Your task to perform on an android device: Open Youtube and go to "Your channel" Image 0: 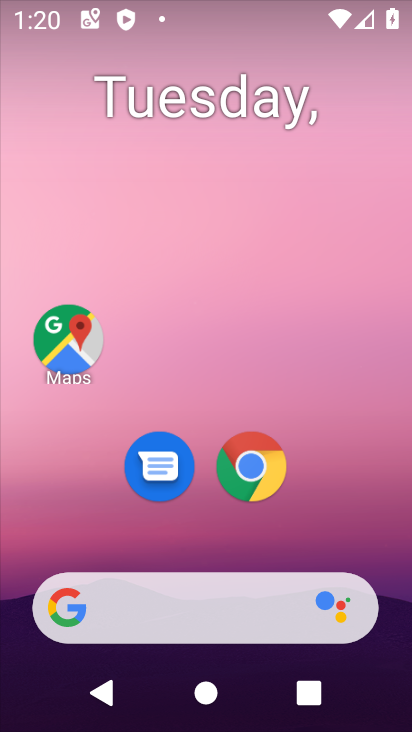
Step 0: drag from (411, 575) to (274, 0)
Your task to perform on an android device: Open Youtube and go to "Your channel" Image 1: 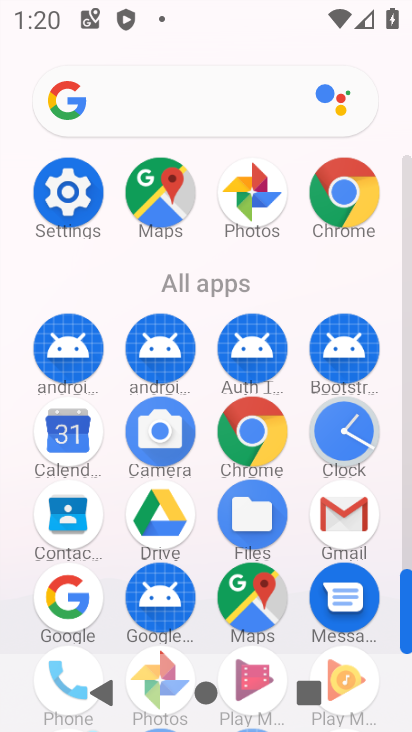
Step 1: drag from (410, 600) to (337, 135)
Your task to perform on an android device: Open Youtube and go to "Your channel" Image 2: 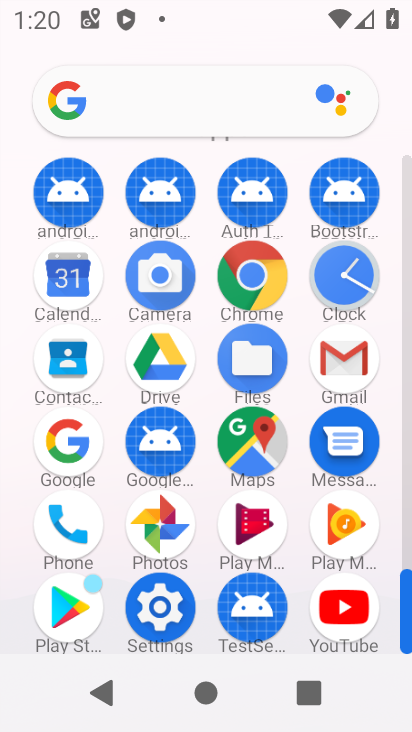
Step 2: click (363, 626)
Your task to perform on an android device: Open Youtube and go to "Your channel" Image 3: 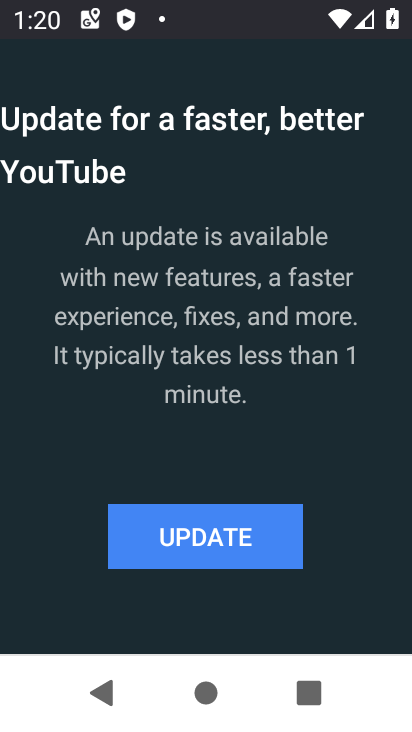
Step 3: click (236, 528)
Your task to perform on an android device: Open Youtube and go to "Your channel" Image 4: 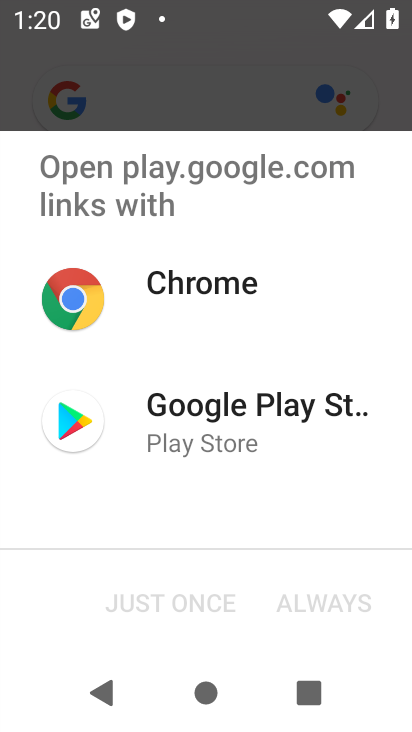
Step 4: click (200, 435)
Your task to perform on an android device: Open Youtube and go to "Your channel" Image 5: 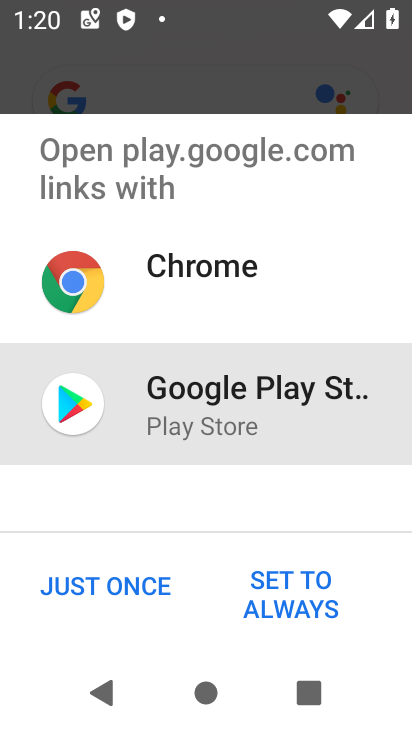
Step 5: click (27, 610)
Your task to perform on an android device: Open Youtube and go to "Your channel" Image 6: 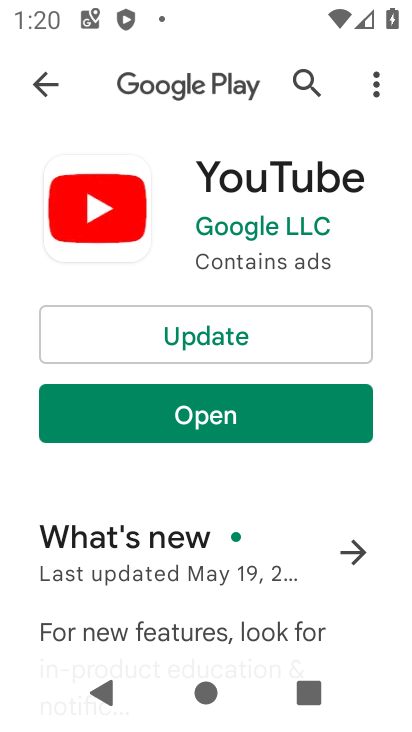
Step 6: click (142, 322)
Your task to perform on an android device: Open Youtube and go to "Your channel" Image 7: 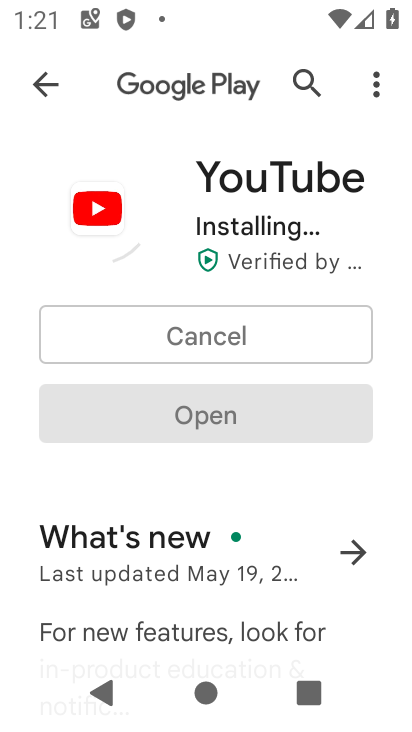
Step 7: click (248, 453)
Your task to perform on an android device: Open Youtube and go to "Your channel" Image 8: 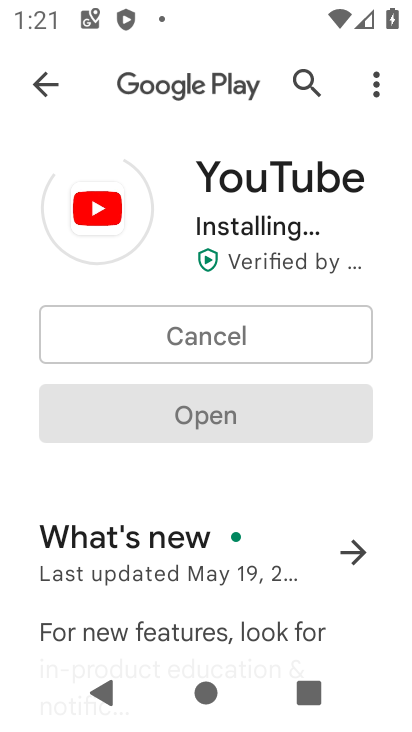
Step 8: click (250, 425)
Your task to perform on an android device: Open Youtube and go to "Your channel" Image 9: 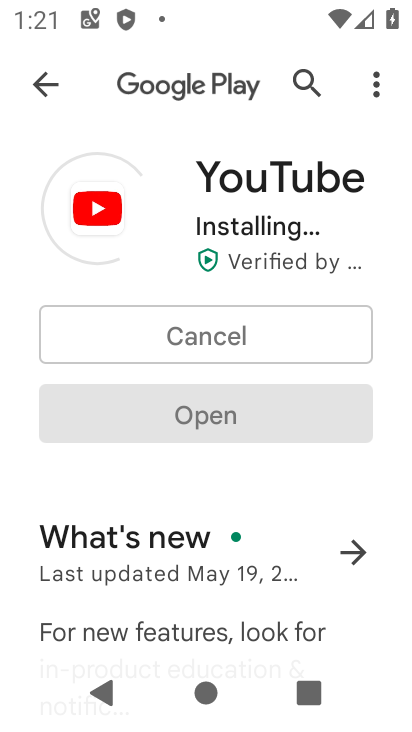
Step 9: click (250, 425)
Your task to perform on an android device: Open Youtube and go to "Your channel" Image 10: 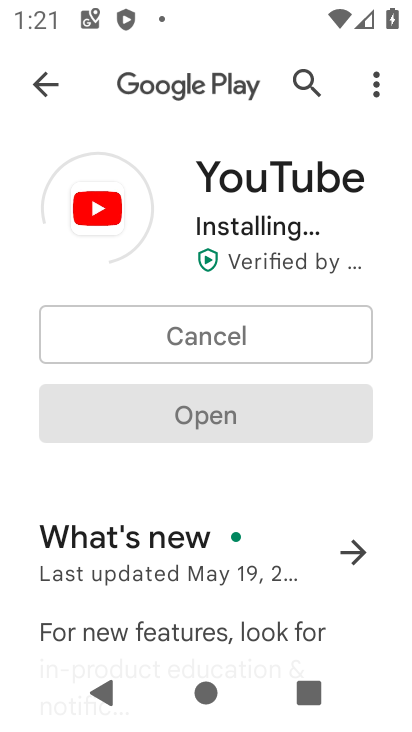
Step 10: click (250, 425)
Your task to perform on an android device: Open Youtube and go to "Your channel" Image 11: 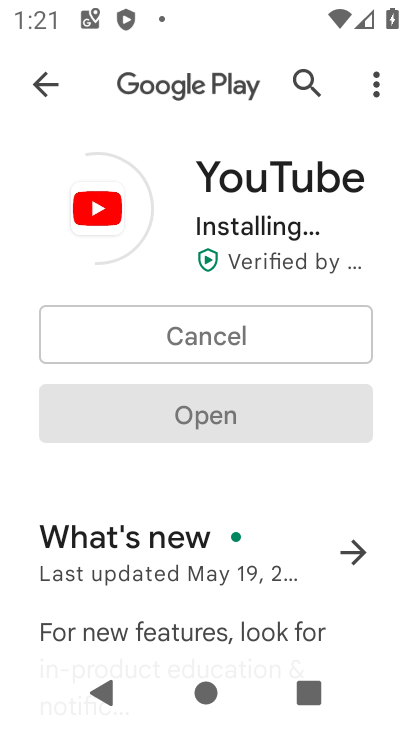
Step 11: click (250, 425)
Your task to perform on an android device: Open Youtube and go to "Your channel" Image 12: 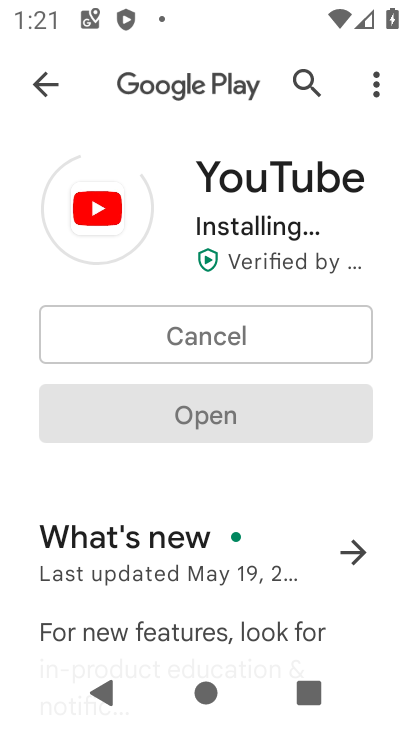
Step 12: click (250, 425)
Your task to perform on an android device: Open Youtube and go to "Your channel" Image 13: 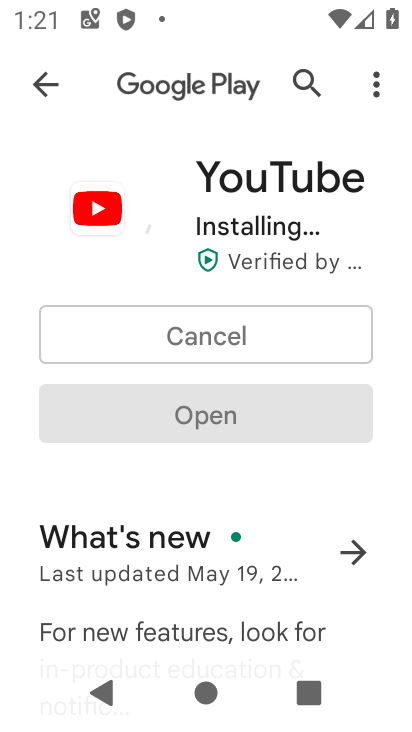
Step 13: click (250, 425)
Your task to perform on an android device: Open Youtube and go to "Your channel" Image 14: 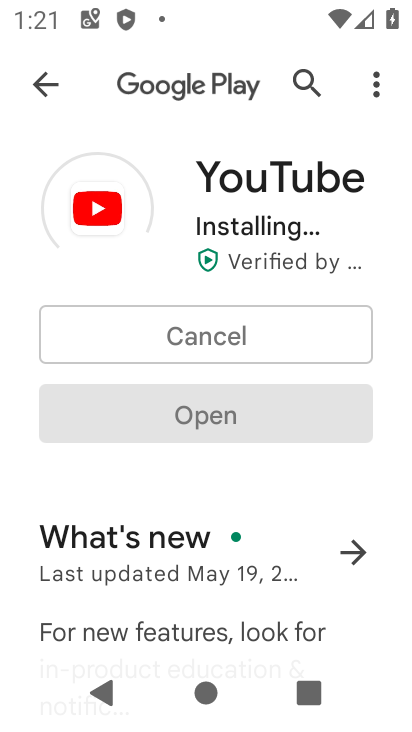
Step 14: click (250, 425)
Your task to perform on an android device: Open Youtube and go to "Your channel" Image 15: 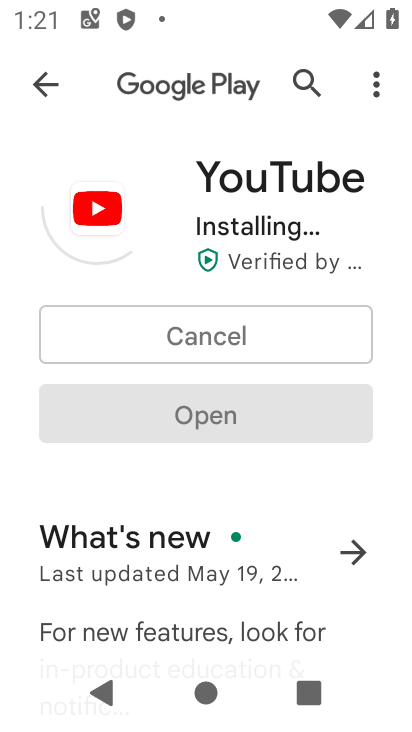
Step 15: click (250, 425)
Your task to perform on an android device: Open Youtube and go to "Your channel" Image 16: 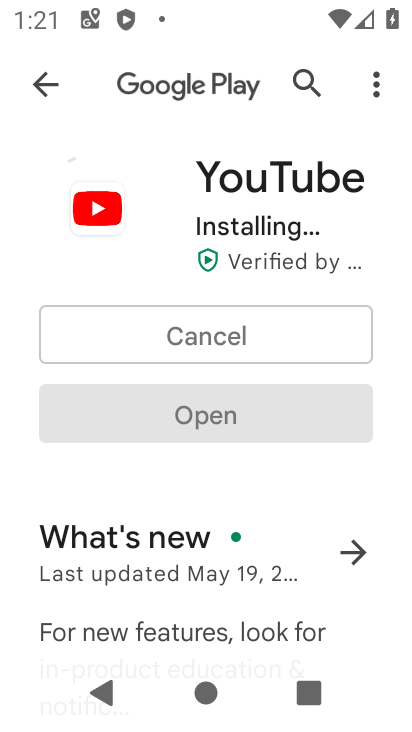
Step 16: click (250, 425)
Your task to perform on an android device: Open Youtube and go to "Your channel" Image 17: 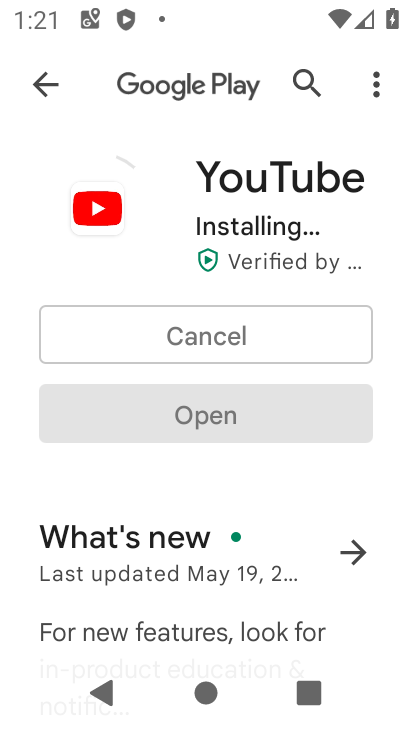
Step 17: click (250, 425)
Your task to perform on an android device: Open Youtube and go to "Your channel" Image 18: 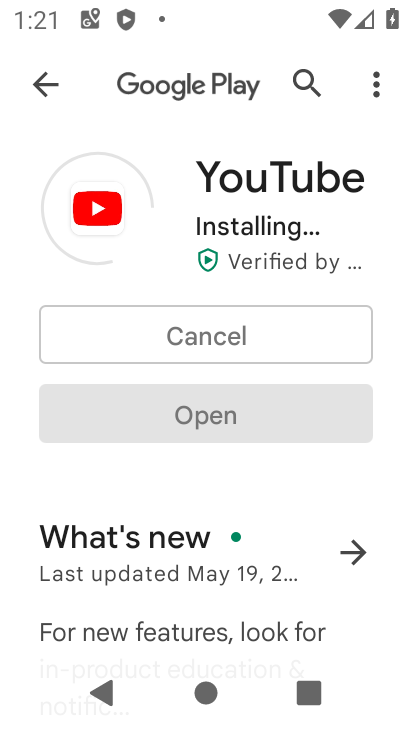
Step 18: click (250, 425)
Your task to perform on an android device: Open Youtube and go to "Your channel" Image 19: 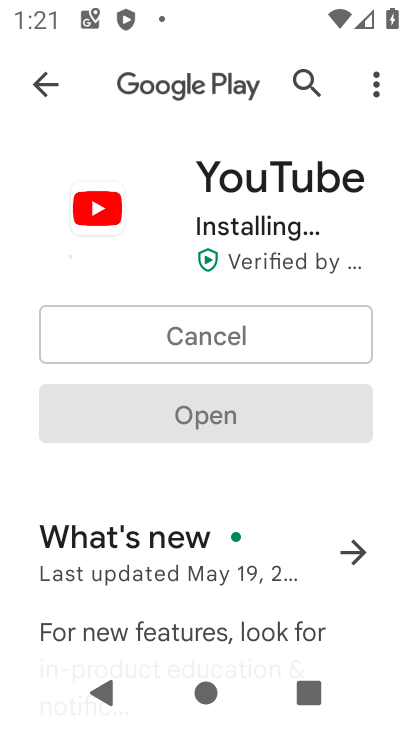
Step 19: click (250, 425)
Your task to perform on an android device: Open Youtube and go to "Your channel" Image 20: 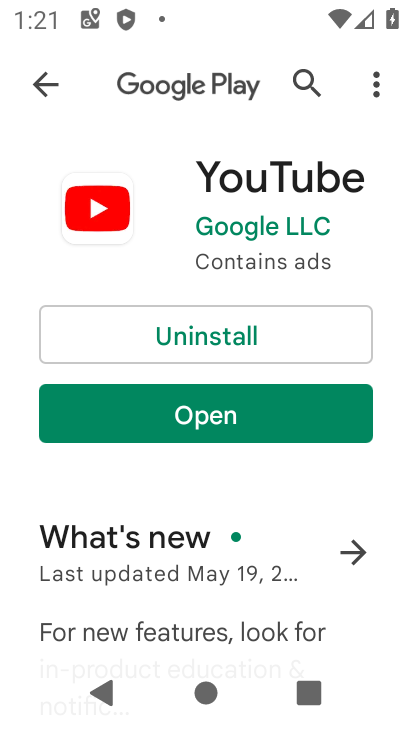
Step 20: click (250, 425)
Your task to perform on an android device: Open Youtube and go to "Your channel" Image 21: 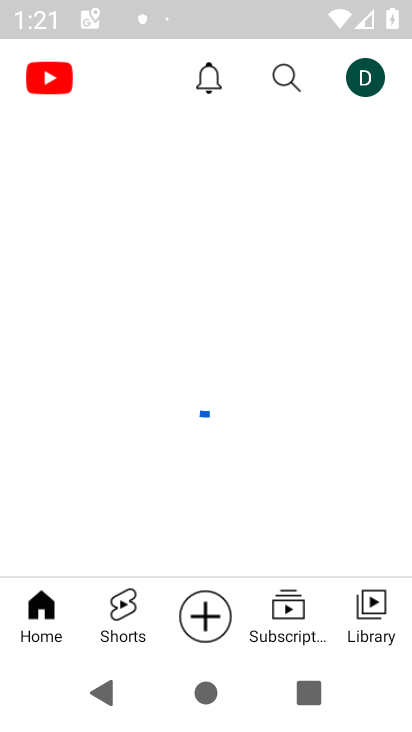
Step 21: click (366, 74)
Your task to perform on an android device: Open Youtube and go to "Your channel" Image 22: 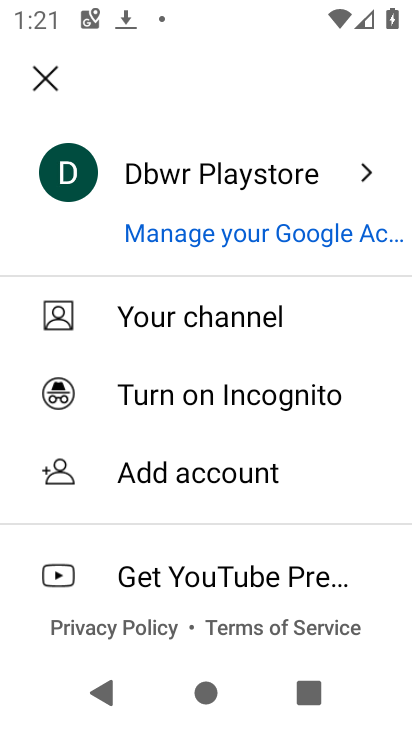
Step 22: click (170, 335)
Your task to perform on an android device: Open Youtube and go to "Your channel" Image 23: 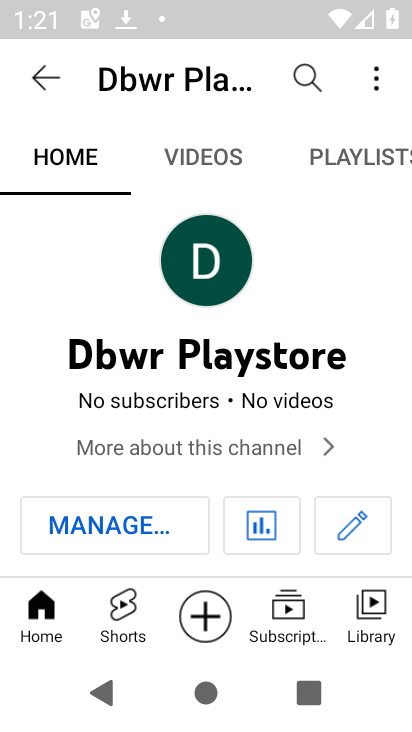
Step 23: task complete